Your task to perform on an android device: Open Google Maps Image 0: 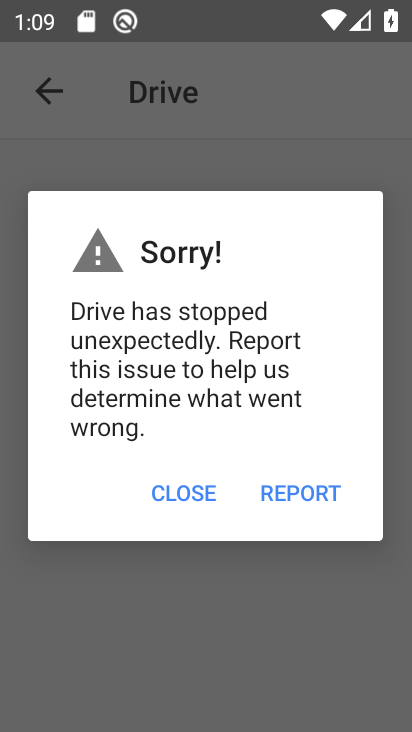
Step 0: press home button
Your task to perform on an android device: Open Google Maps Image 1: 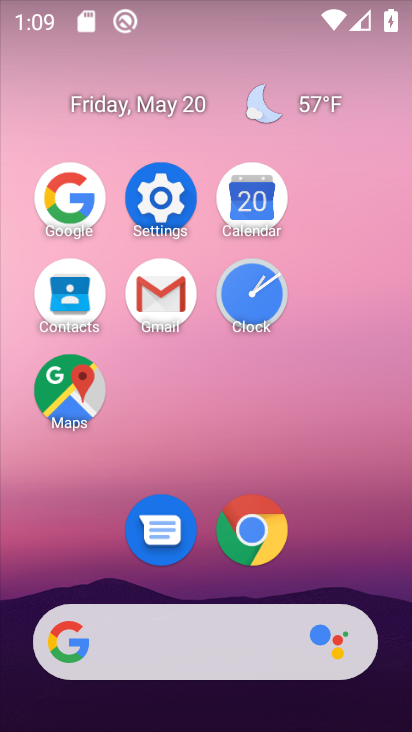
Step 1: click (76, 393)
Your task to perform on an android device: Open Google Maps Image 2: 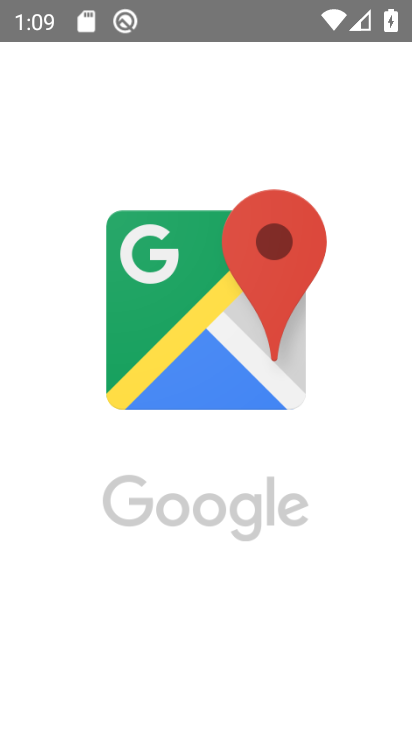
Step 2: task complete